Your task to perform on an android device: change alarm snooze length Image 0: 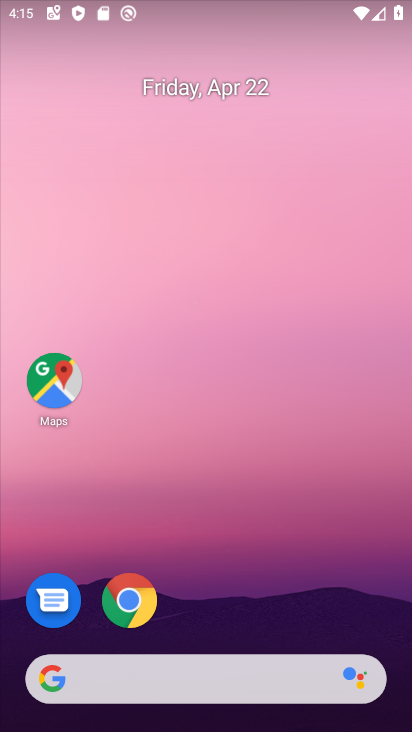
Step 0: drag from (247, 682) to (297, 223)
Your task to perform on an android device: change alarm snooze length Image 1: 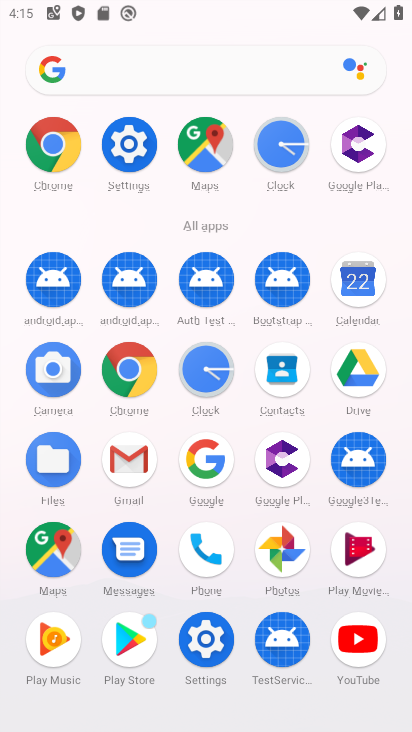
Step 1: click (211, 378)
Your task to perform on an android device: change alarm snooze length Image 2: 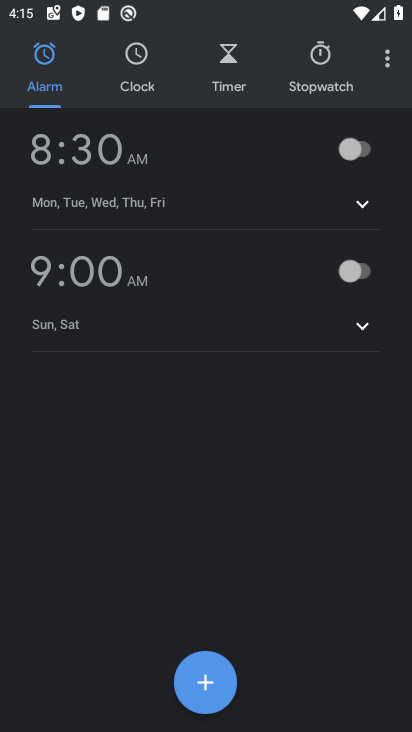
Step 2: click (141, 151)
Your task to perform on an android device: change alarm snooze length Image 3: 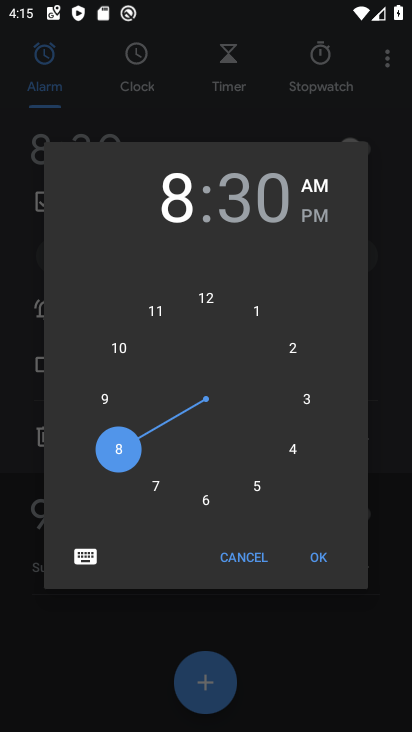
Step 3: click (147, 68)
Your task to perform on an android device: change alarm snooze length Image 4: 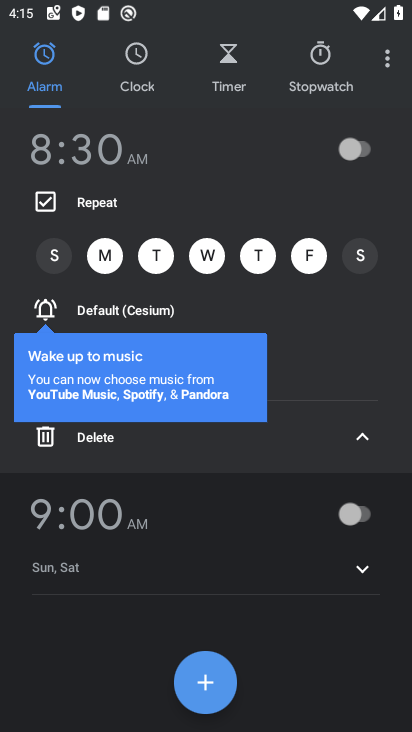
Step 4: click (119, 75)
Your task to perform on an android device: change alarm snooze length Image 5: 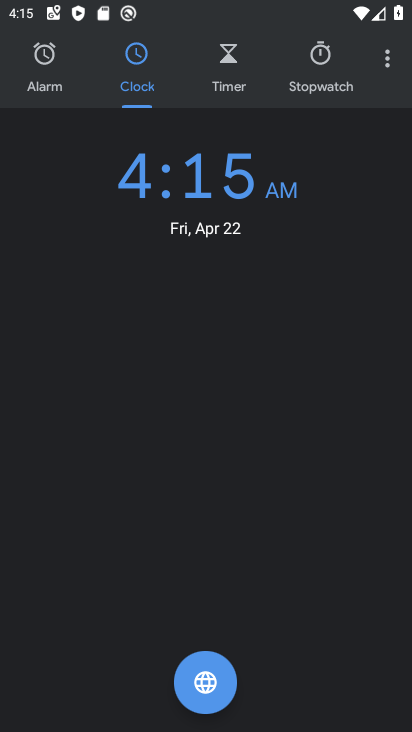
Step 5: click (386, 51)
Your task to perform on an android device: change alarm snooze length Image 6: 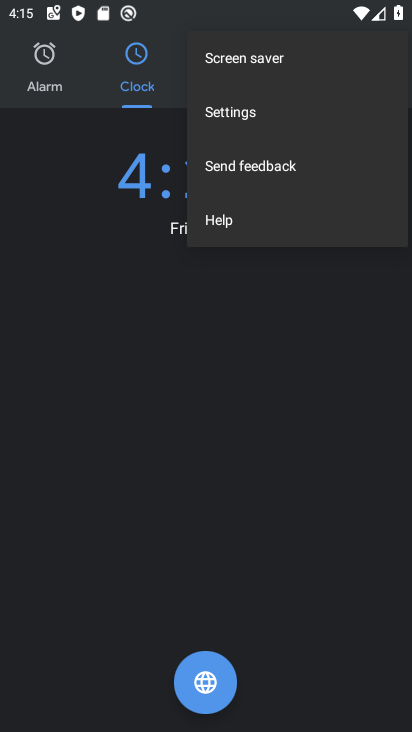
Step 6: click (276, 114)
Your task to perform on an android device: change alarm snooze length Image 7: 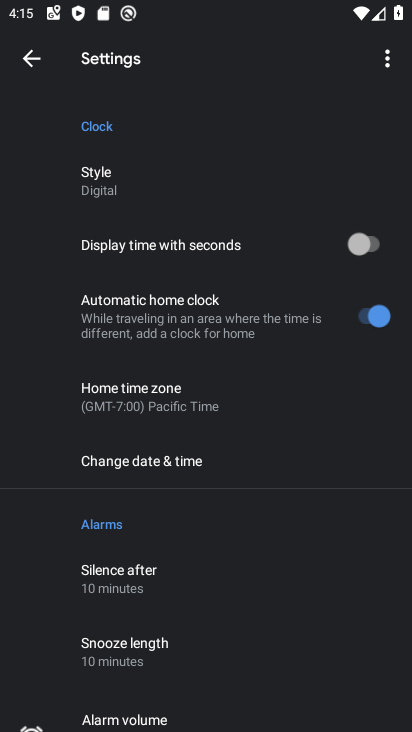
Step 7: click (152, 644)
Your task to perform on an android device: change alarm snooze length Image 8: 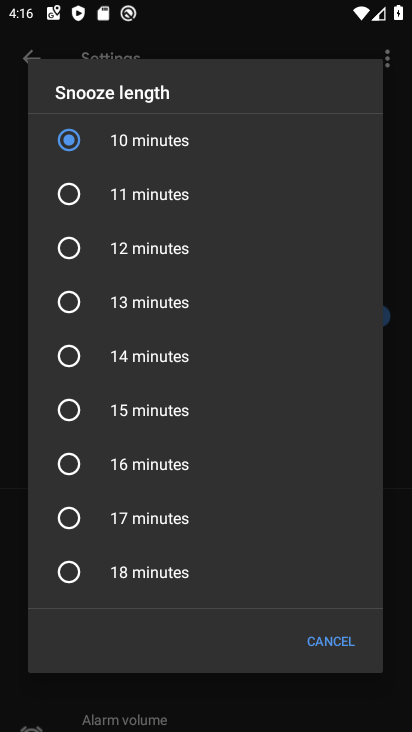
Step 8: click (74, 199)
Your task to perform on an android device: change alarm snooze length Image 9: 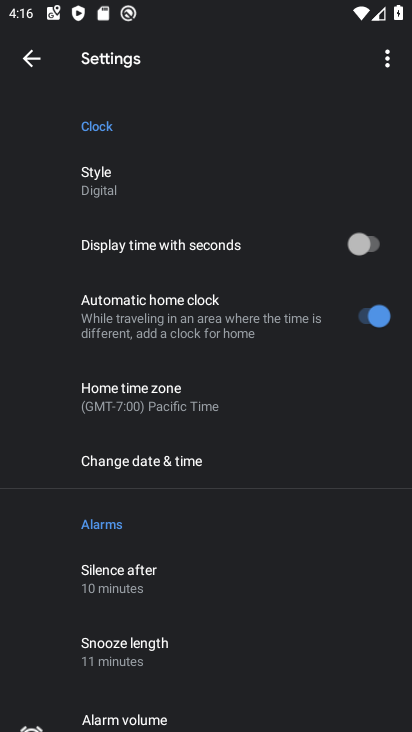
Step 9: task complete